Your task to perform on an android device: Open Google Chrome Image 0: 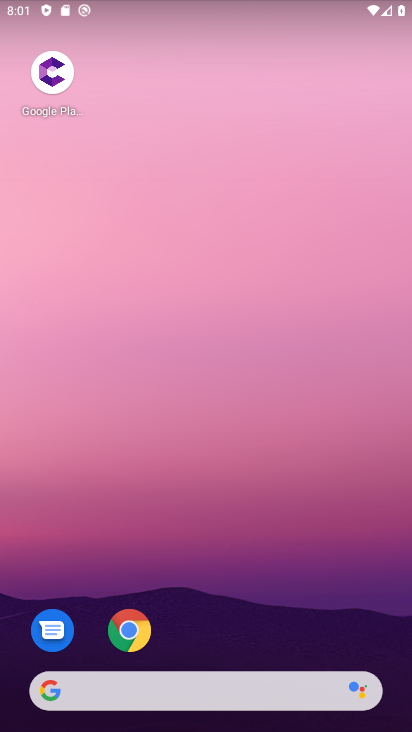
Step 0: click (129, 633)
Your task to perform on an android device: Open Google Chrome Image 1: 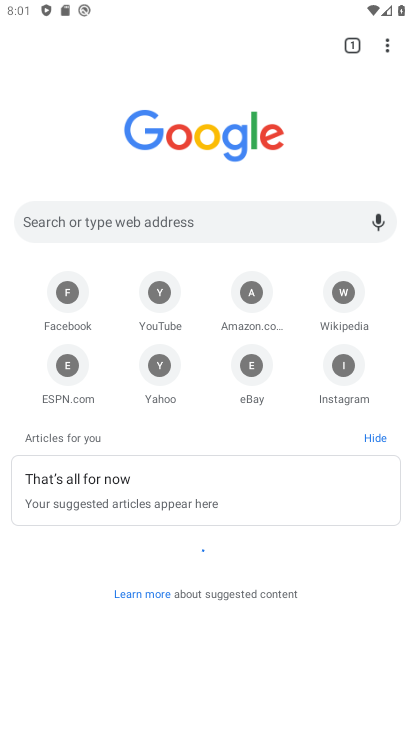
Step 1: task complete